Your task to perform on an android device: change the clock display to digital Image 0: 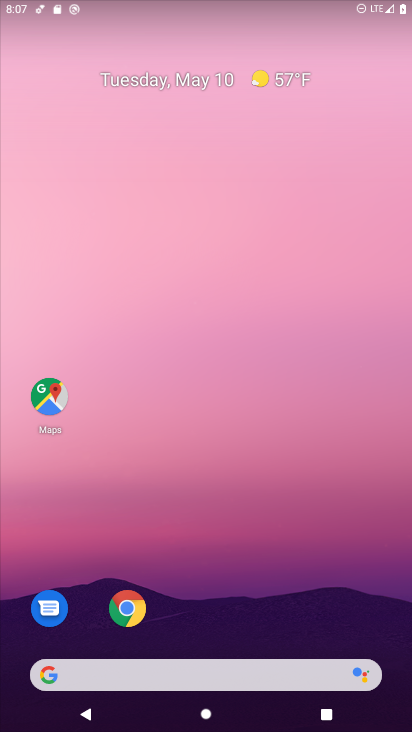
Step 0: drag from (377, 624) to (261, 24)
Your task to perform on an android device: change the clock display to digital Image 1: 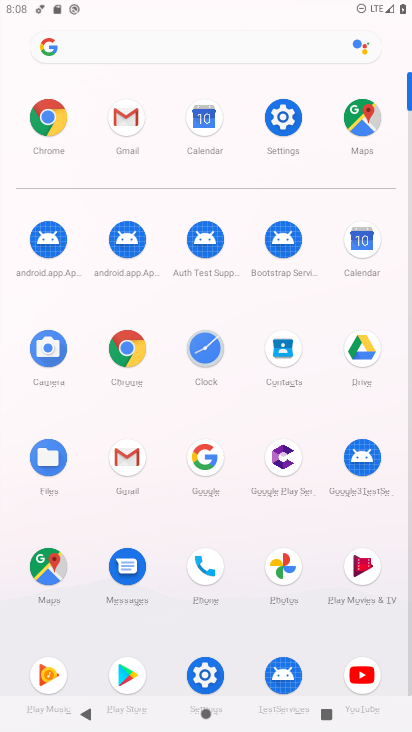
Step 1: click (205, 342)
Your task to perform on an android device: change the clock display to digital Image 2: 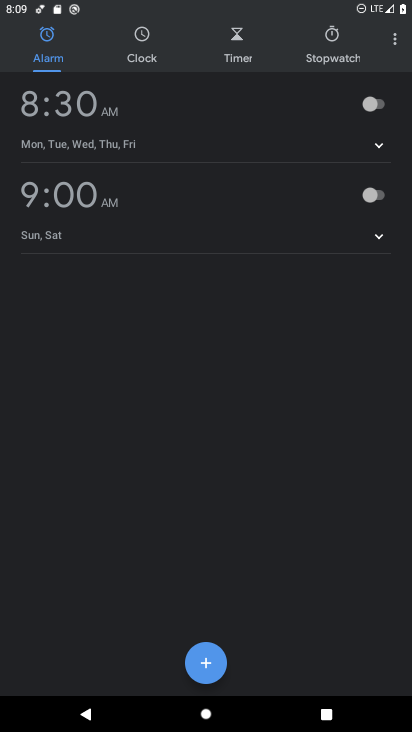
Step 2: click (397, 42)
Your task to perform on an android device: change the clock display to digital Image 3: 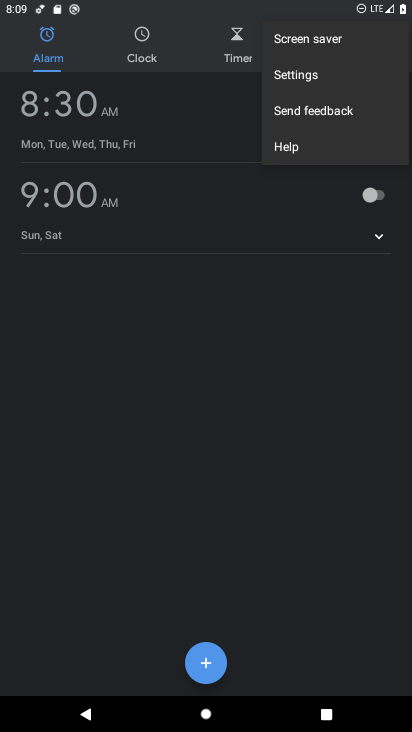
Step 3: click (322, 84)
Your task to perform on an android device: change the clock display to digital Image 4: 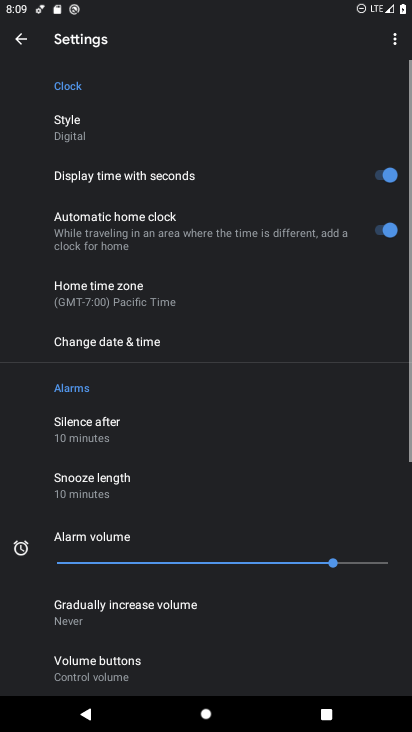
Step 4: click (154, 126)
Your task to perform on an android device: change the clock display to digital Image 5: 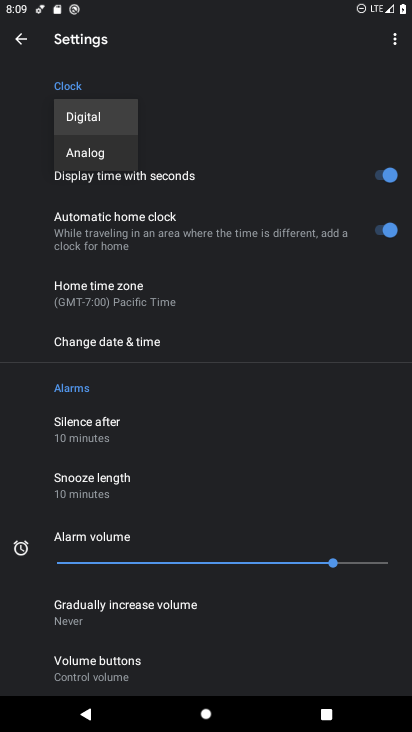
Step 5: click (113, 117)
Your task to perform on an android device: change the clock display to digital Image 6: 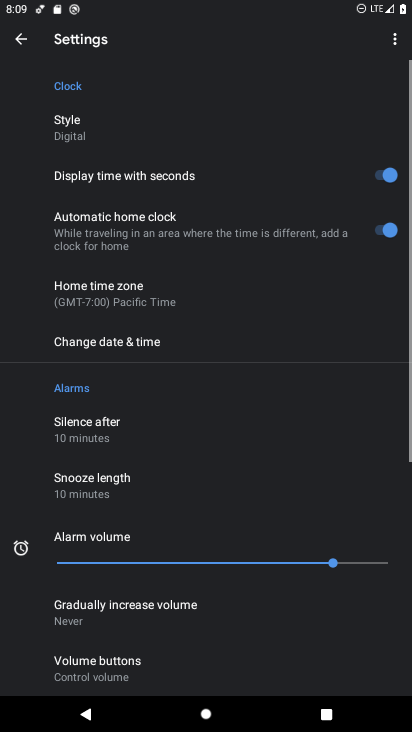
Step 6: task complete